Your task to perform on an android device: Search for "razer deathadder" on costco, select the first entry, add it to the cart, then select checkout. Image 0: 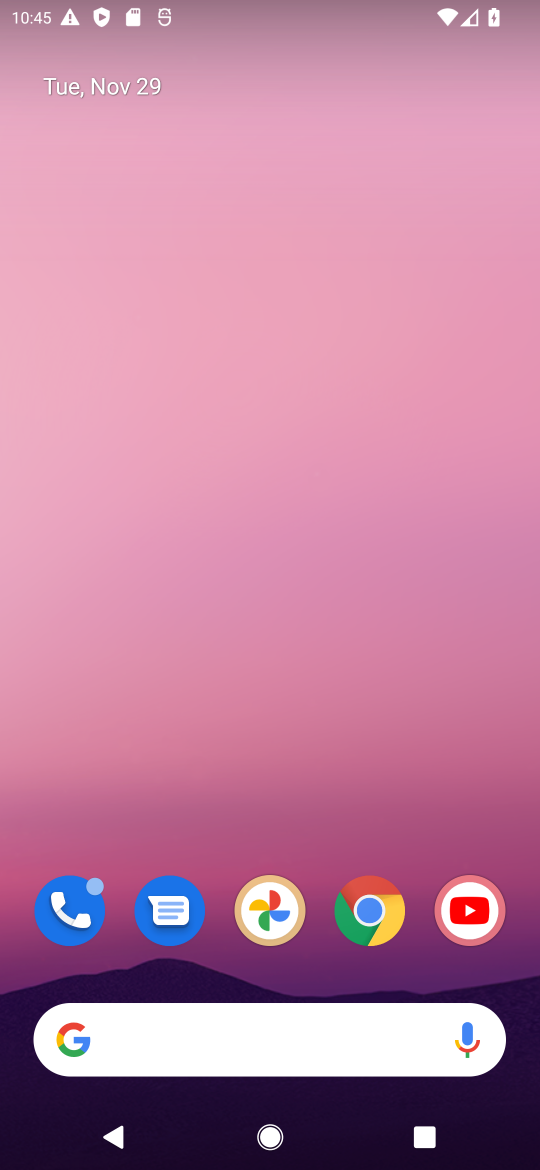
Step 0: click (361, 918)
Your task to perform on an android device: Search for "razer deathadder" on costco, select the first entry, add it to the cart, then select checkout. Image 1: 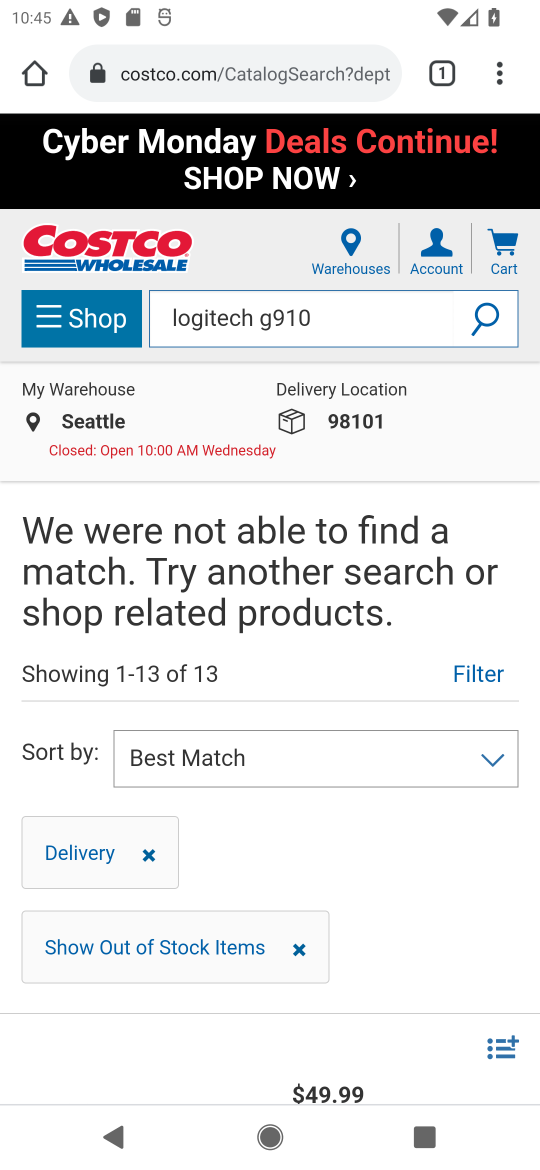
Step 1: click (230, 313)
Your task to perform on an android device: Search for "razer deathadder" on costco, select the first entry, add it to the cart, then select checkout. Image 2: 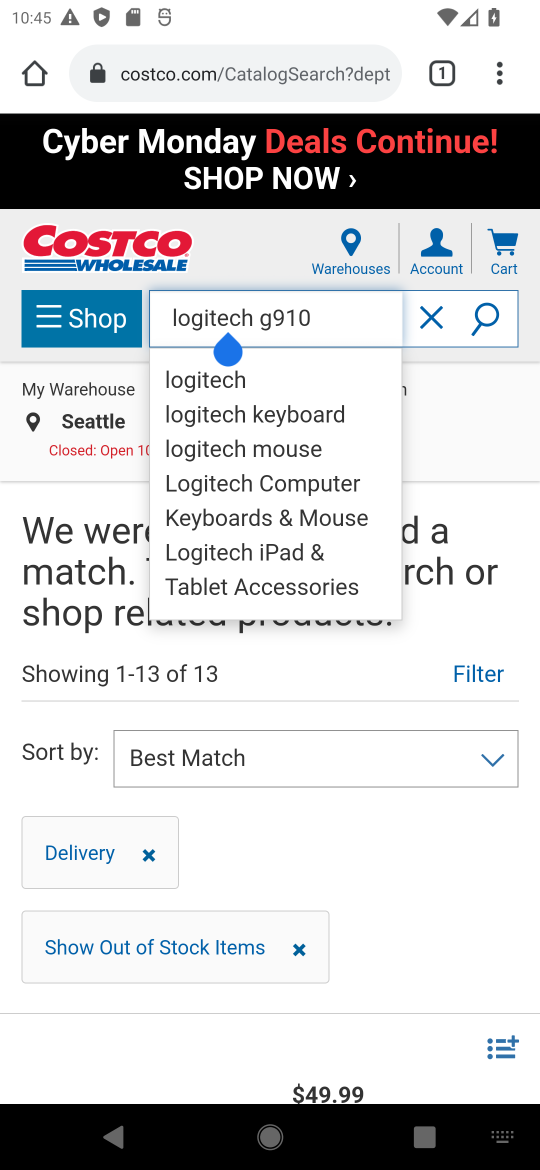
Step 2: click (435, 328)
Your task to perform on an android device: Search for "razer deathadder" on costco, select the first entry, add it to the cart, then select checkout. Image 3: 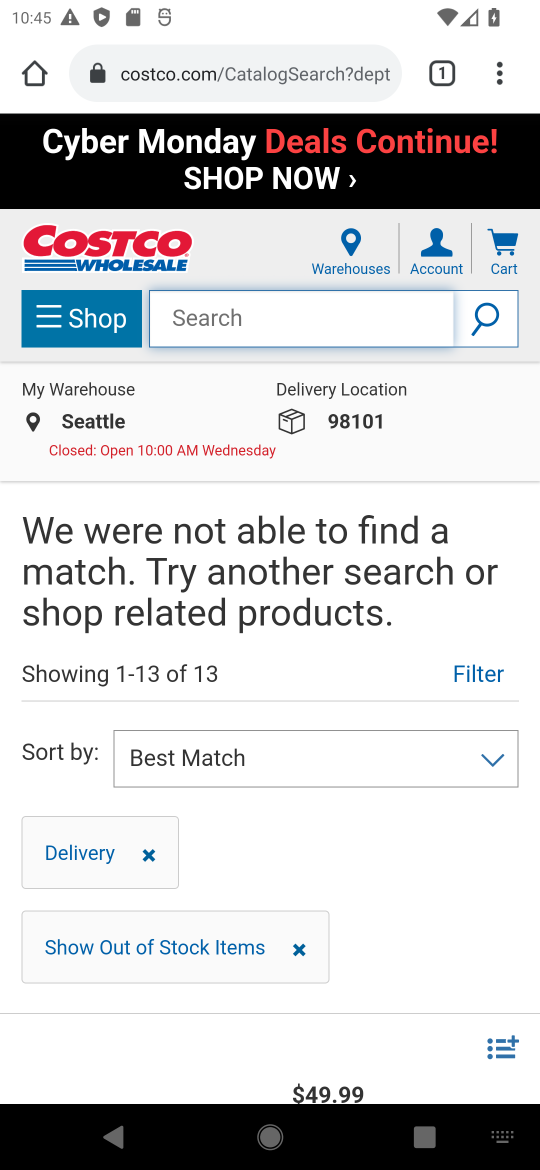
Step 3: type "razer deathadder"
Your task to perform on an android device: Search for "razer deathadder" on costco, select the first entry, add it to the cart, then select checkout. Image 4: 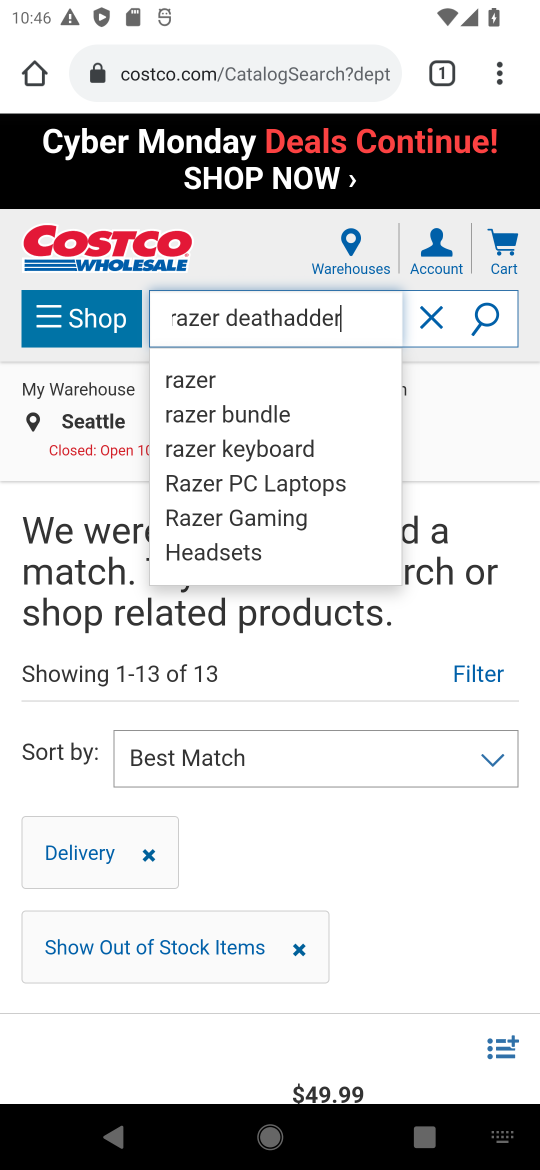
Step 4: click (484, 317)
Your task to perform on an android device: Search for "razer deathadder" on costco, select the first entry, add it to the cart, then select checkout. Image 5: 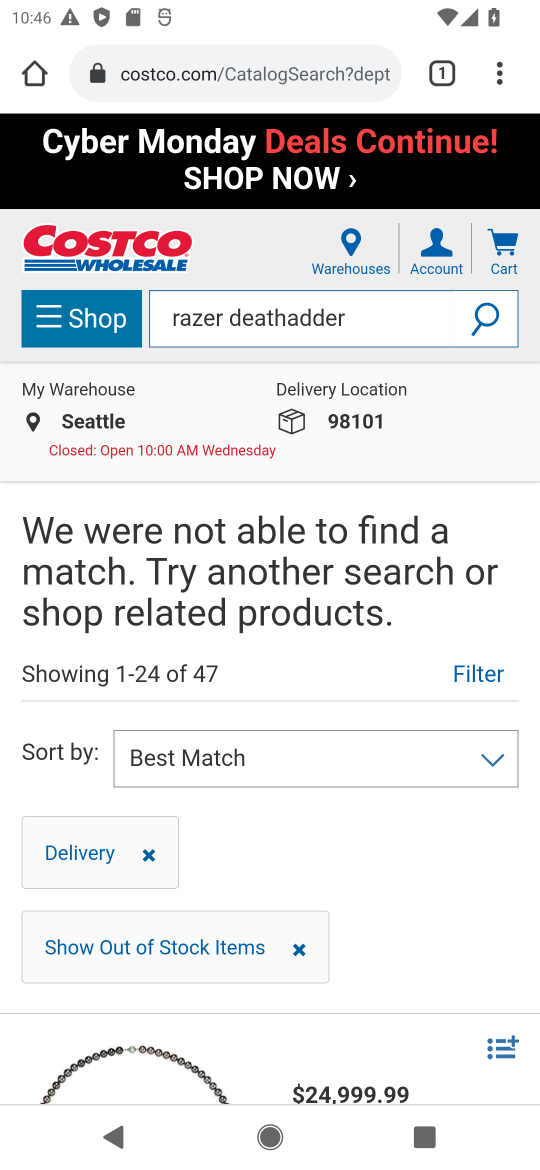
Step 5: task complete